Your task to perform on an android device: find which apps use the phone's location Image 0: 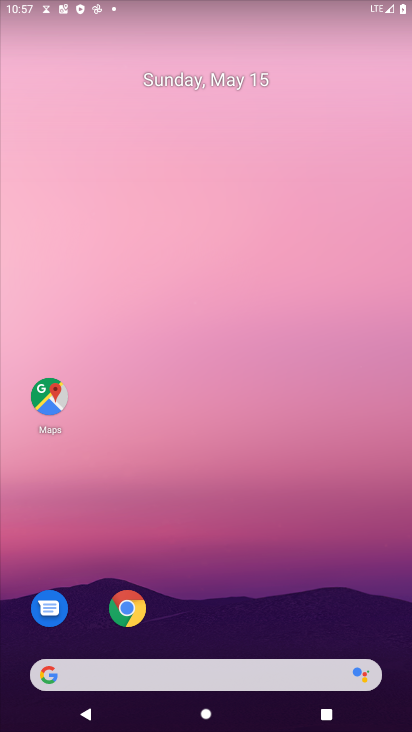
Step 0: drag from (272, 497) to (84, 30)
Your task to perform on an android device: find which apps use the phone's location Image 1: 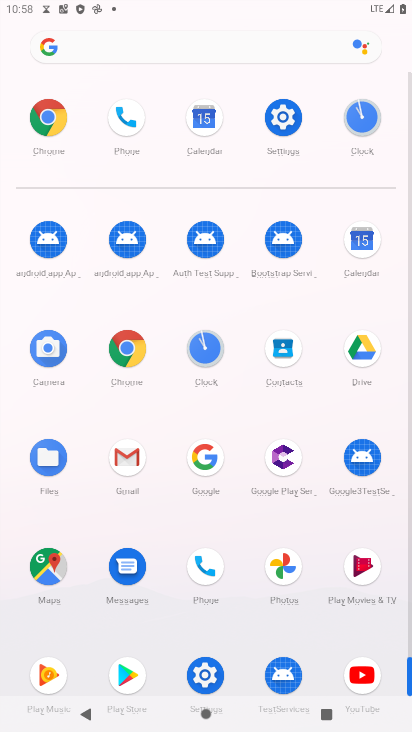
Step 1: drag from (327, 185) to (285, 39)
Your task to perform on an android device: find which apps use the phone's location Image 2: 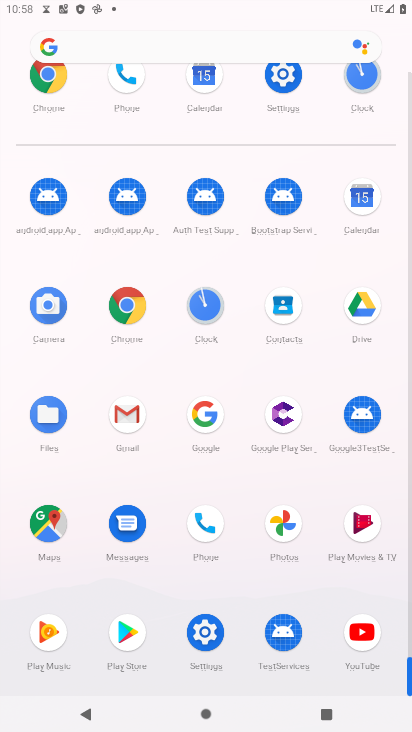
Step 2: click (289, 89)
Your task to perform on an android device: find which apps use the phone's location Image 3: 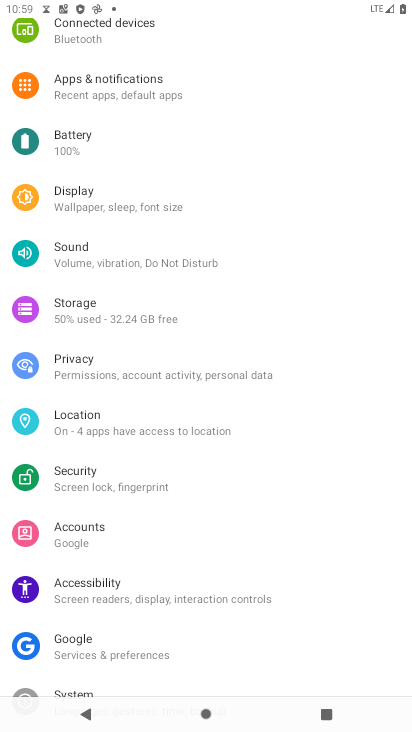
Step 3: click (105, 412)
Your task to perform on an android device: find which apps use the phone's location Image 4: 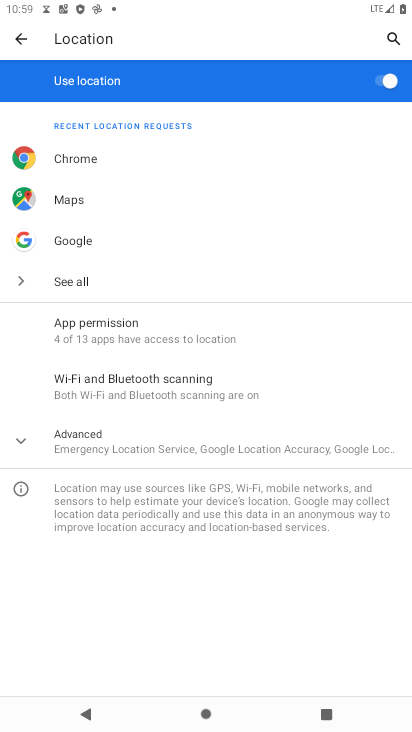
Step 4: click (171, 327)
Your task to perform on an android device: find which apps use the phone's location Image 5: 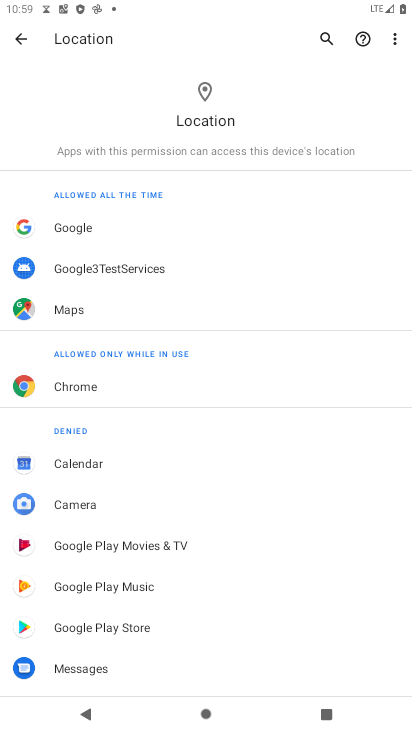
Step 5: task complete